Your task to perform on an android device: visit the assistant section in the google photos Image 0: 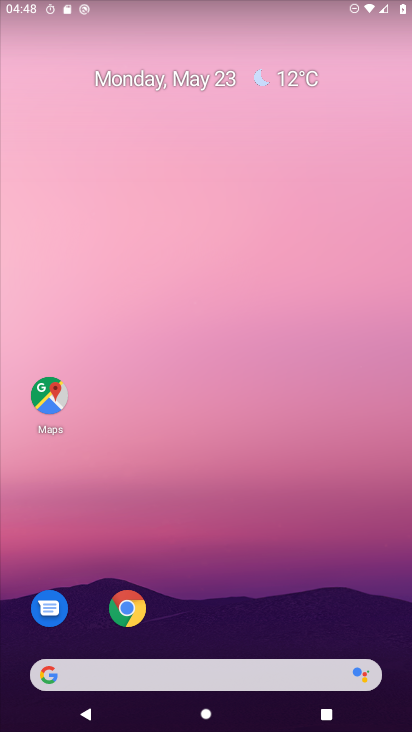
Step 0: drag from (295, 560) to (215, 74)
Your task to perform on an android device: visit the assistant section in the google photos Image 1: 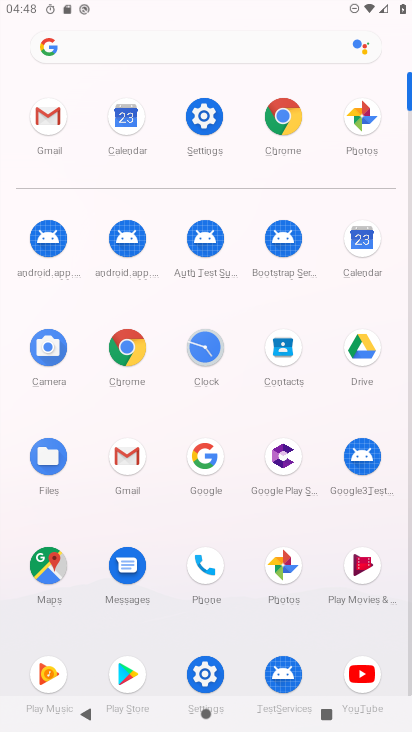
Step 1: click (286, 566)
Your task to perform on an android device: visit the assistant section in the google photos Image 2: 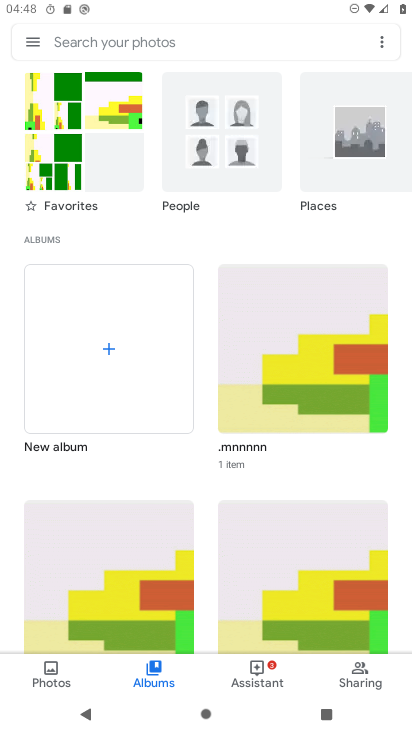
Step 2: click (266, 675)
Your task to perform on an android device: visit the assistant section in the google photos Image 3: 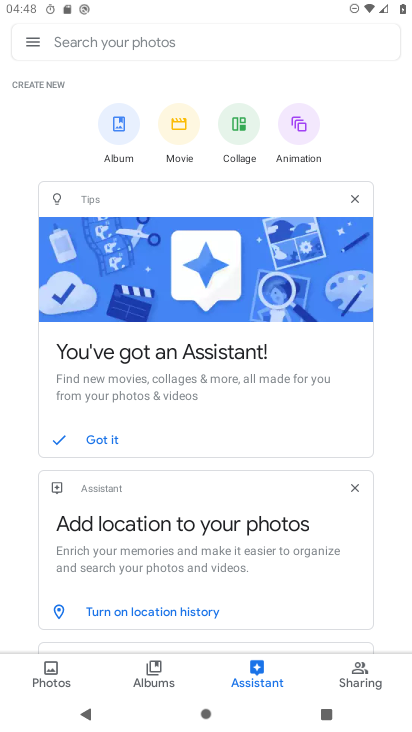
Step 3: task complete